Your task to perform on an android device: turn on airplane mode Image 0: 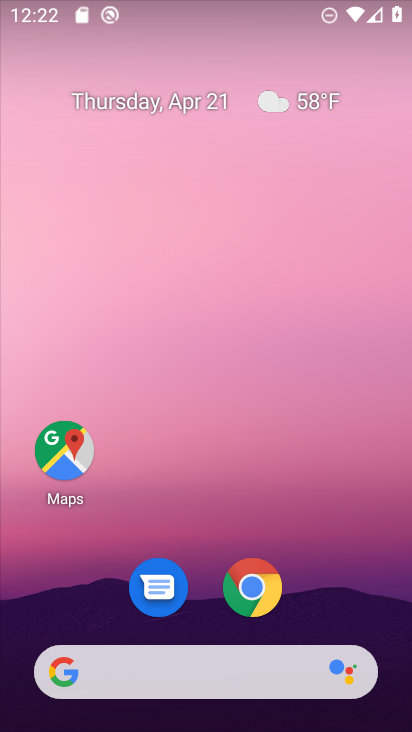
Step 0: click (306, 187)
Your task to perform on an android device: turn on airplane mode Image 1: 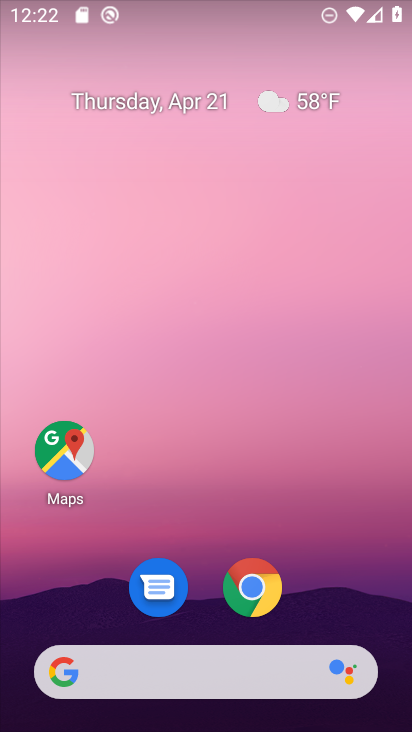
Step 1: drag from (295, 634) to (401, 42)
Your task to perform on an android device: turn on airplane mode Image 2: 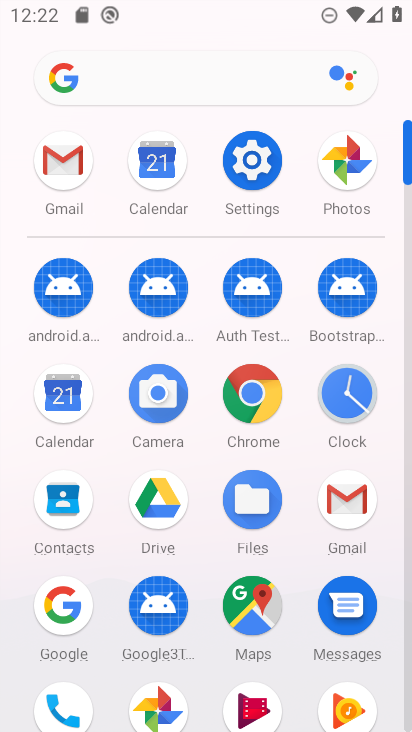
Step 2: click (269, 182)
Your task to perform on an android device: turn on airplane mode Image 3: 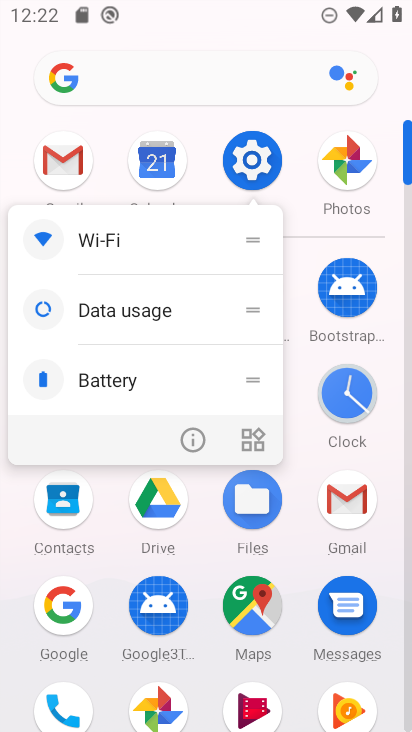
Step 3: click (259, 182)
Your task to perform on an android device: turn on airplane mode Image 4: 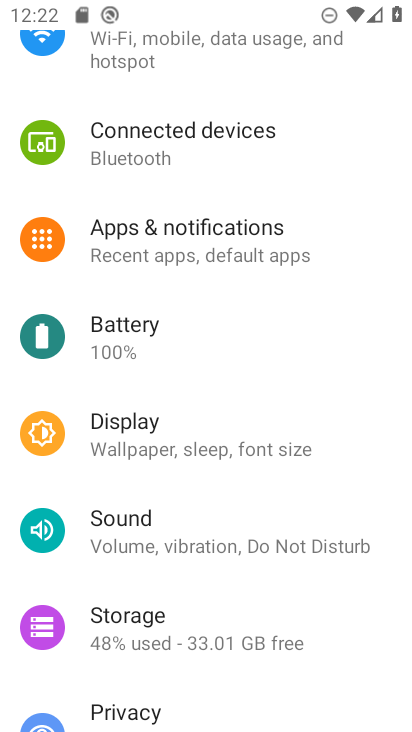
Step 4: drag from (217, 160) to (198, 451)
Your task to perform on an android device: turn on airplane mode Image 5: 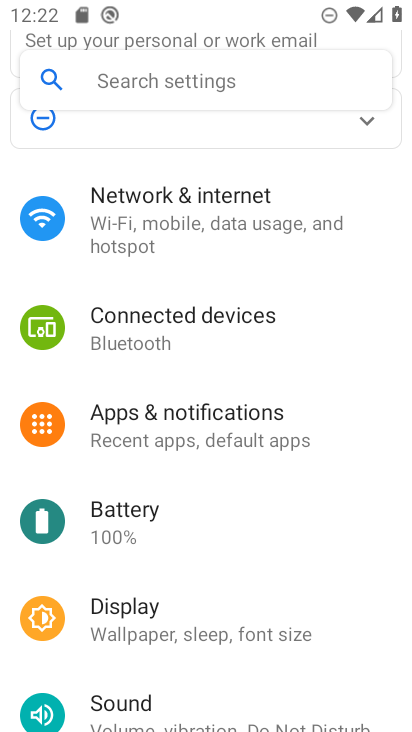
Step 5: click (190, 232)
Your task to perform on an android device: turn on airplane mode Image 6: 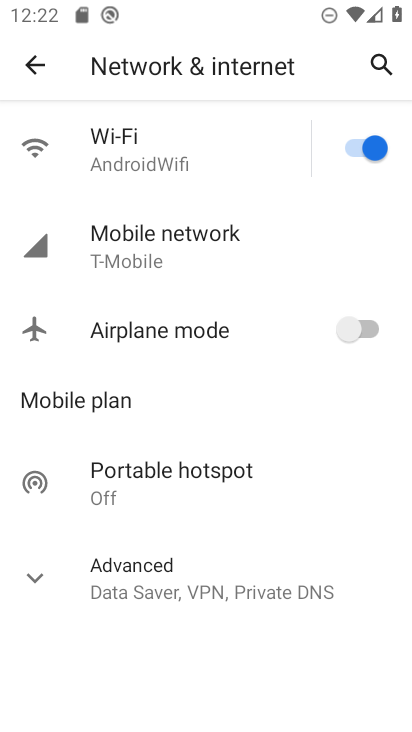
Step 6: click (317, 334)
Your task to perform on an android device: turn on airplane mode Image 7: 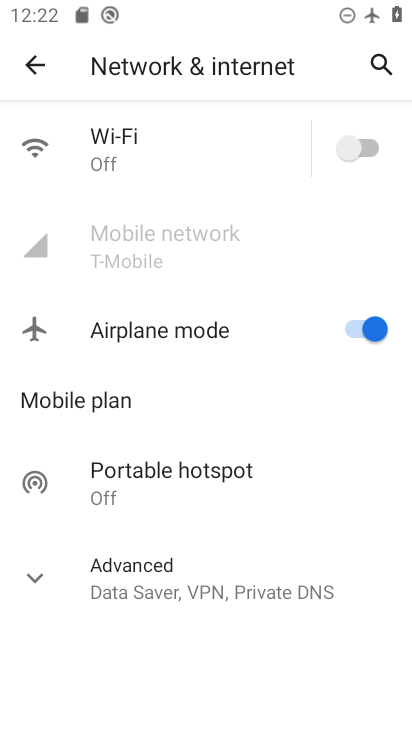
Step 7: task complete